Your task to perform on an android device: see sites visited before in the chrome app Image 0: 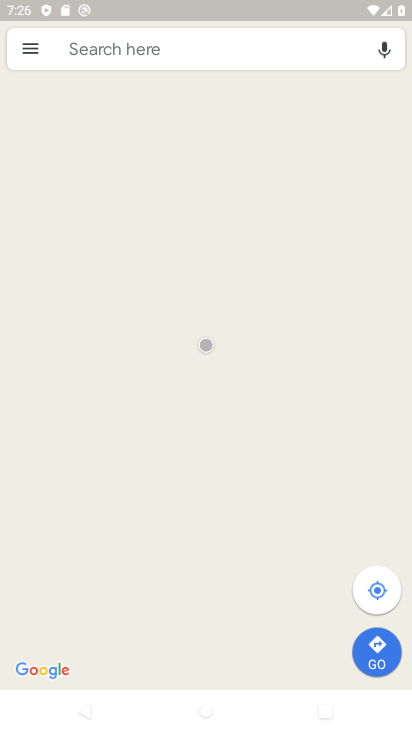
Step 0: press home button
Your task to perform on an android device: see sites visited before in the chrome app Image 1: 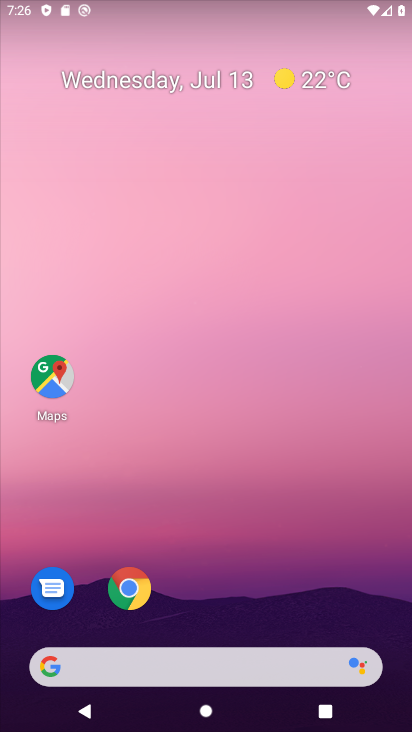
Step 1: drag from (277, 593) to (302, 99)
Your task to perform on an android device: see sites visited before in the chrome app Image 2: 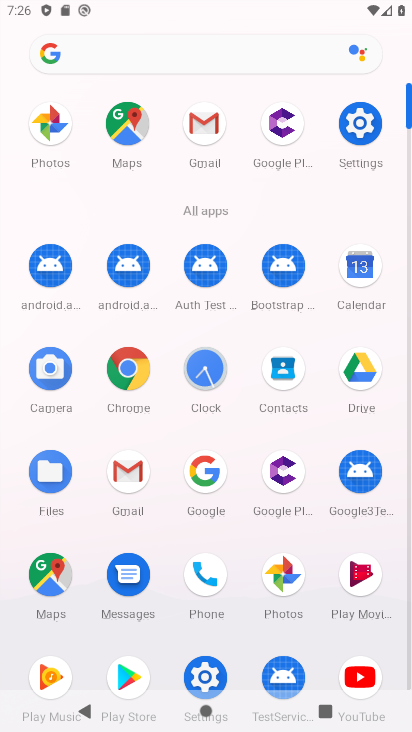
Step 2: click (142, 365)
Your task to perform on an android device: see sites visited before in the chrome app Image 3: 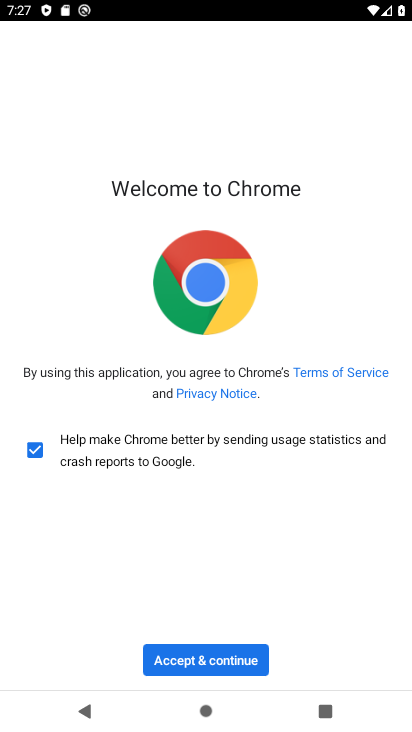
Step 3: click (200, 652)
Your task to perform on an android device: see sites visited before in the chrome app Image 4: 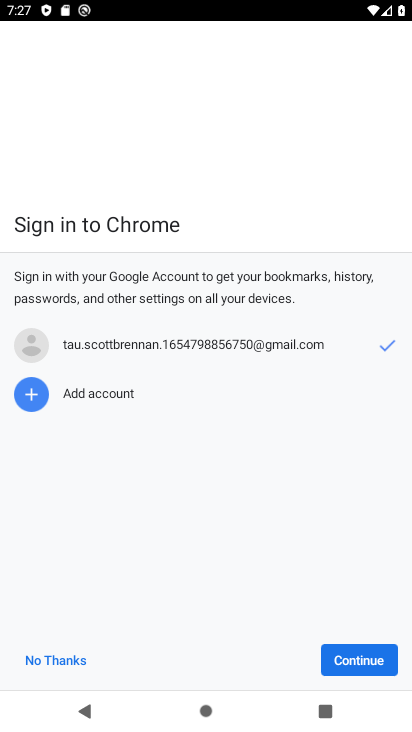
Step 4: click (339, 659)
Your task to perform on an android device: see sites visited before in the chrome app Image 5: 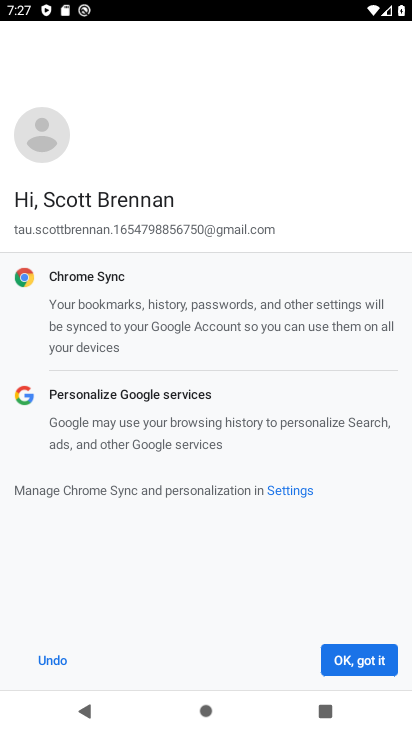
Step 5: click (339, 659)
Your task to perform on an android device: see sites visited before in the chrome app Image 6: 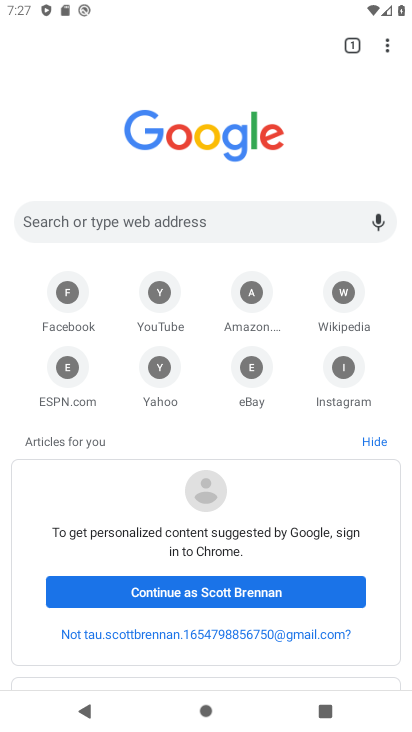
Step 6: click (391, 41)
Your task to perform on an android device: see sites visited before in the chrome app Image 7: 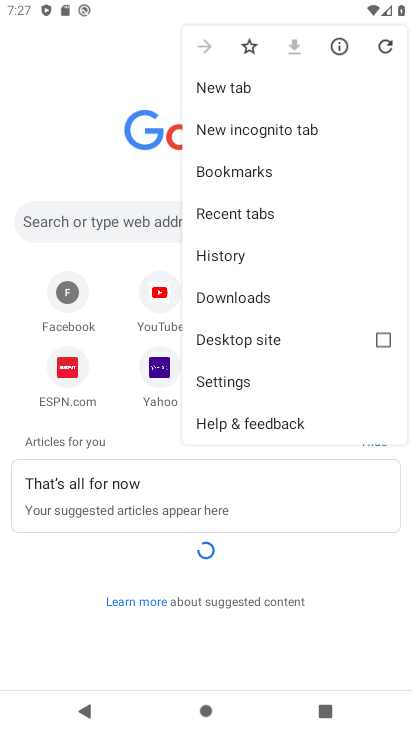
Step 7: click (244, 262)
Your task to perform on an android device: see sites visited before in the chrome app Image 8: 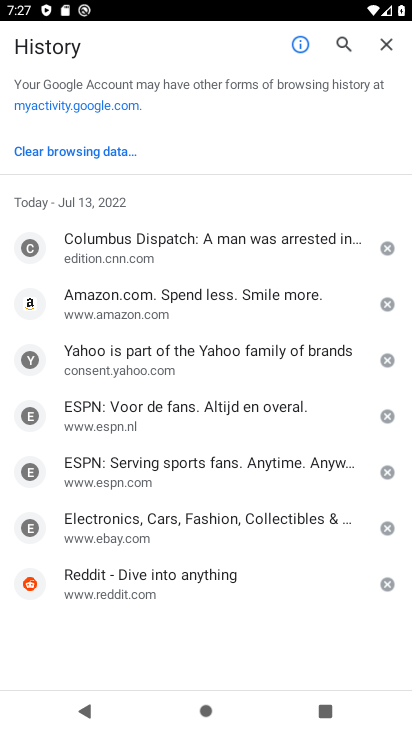
Step 8: task complete